Your task to perform on an android device: turn off data saver in the chrome app Image 0: 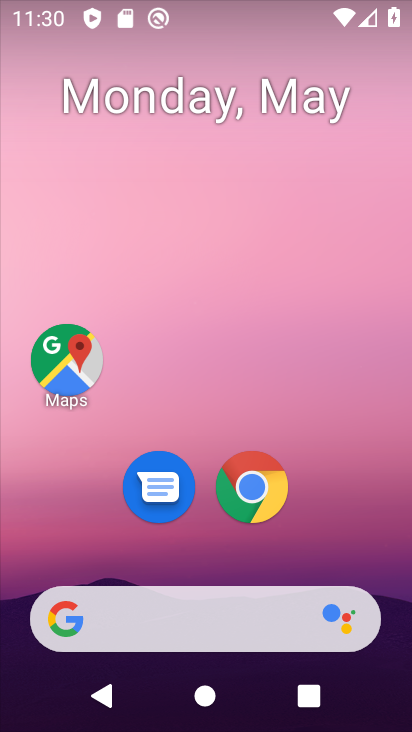
Step 0: click (251, 479)
Your task to perform on an android device: turn off data saver in the chrome app Image 1: 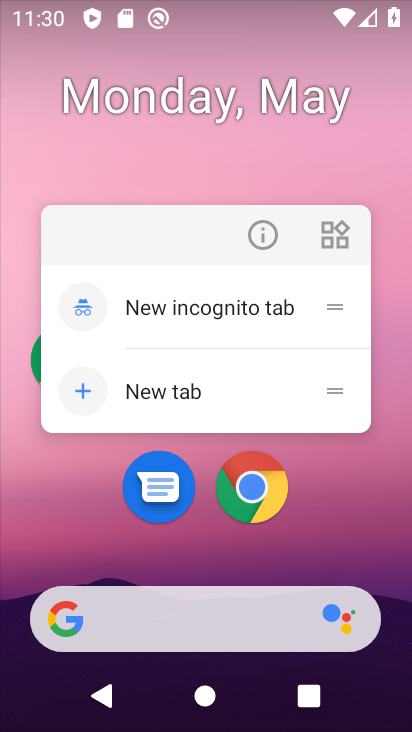
Step 1: click (252, 475)
Your task to perform on an android device: turn off data saver in the chrome app Image 2: 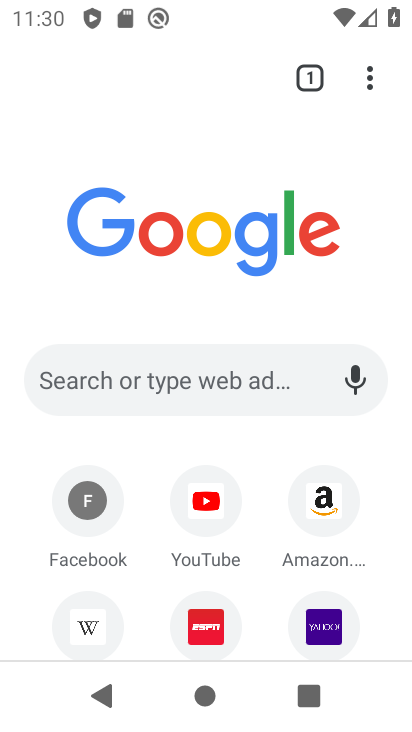
Step 2: click (362, 78)
Your task to perform on an android device: turn off data saver in the chrome app Image 3: 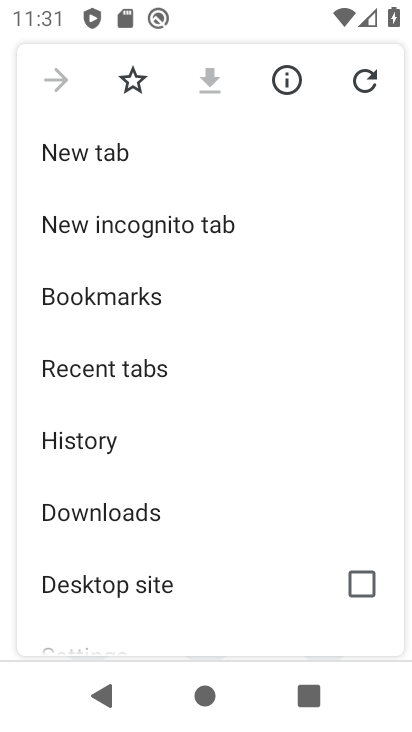
Step 3: drag from (16, 680) to (264, 143)
Your task to perform on an android device: turn off data saver in the chrome app Image 4: 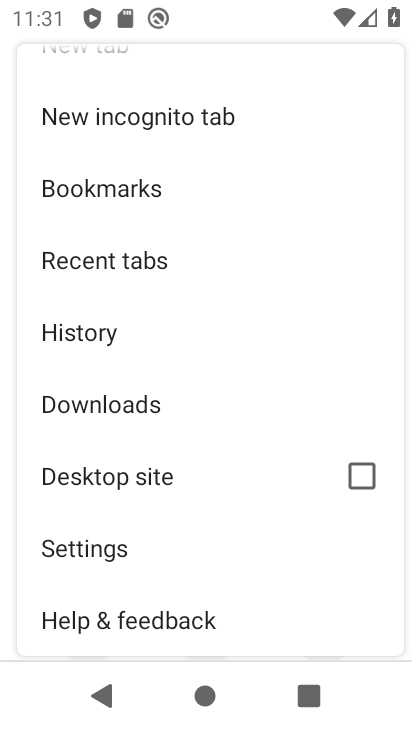
Step 4: click (79, 548)
Your task to perform on an android device: turn off data saver in the chrome app Image 5: 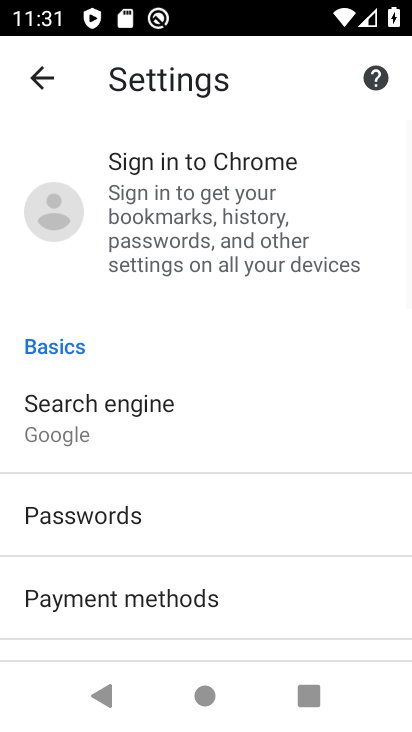
Step 5: drag from (29, 539) to (216, 158)
Your task to perform on an android device: turn off data saver in the chrome app Image 6: 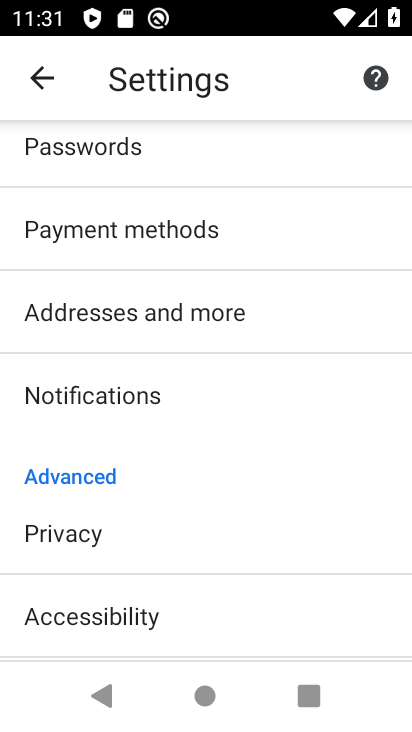
Step 6: drag from (28, 639) to (270, 169)
Your task to perform on an android device: turn off data saver in the chrome app Image 7: 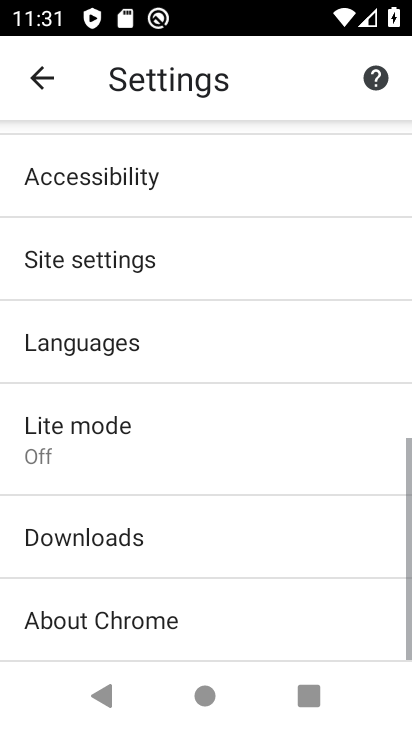
Step 7: click (54, 439)
Your task to perform on an android device: turn off data saver in the chrome app Image 8: 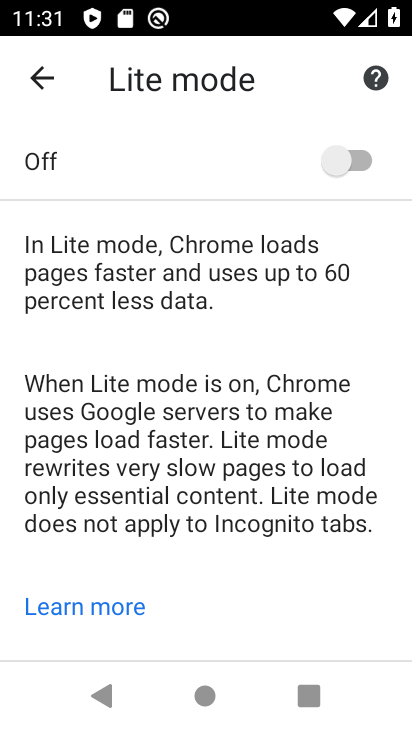
Step 8: task complete